Your task to perform on an android device: Do I have any events this weekend? Image 0: 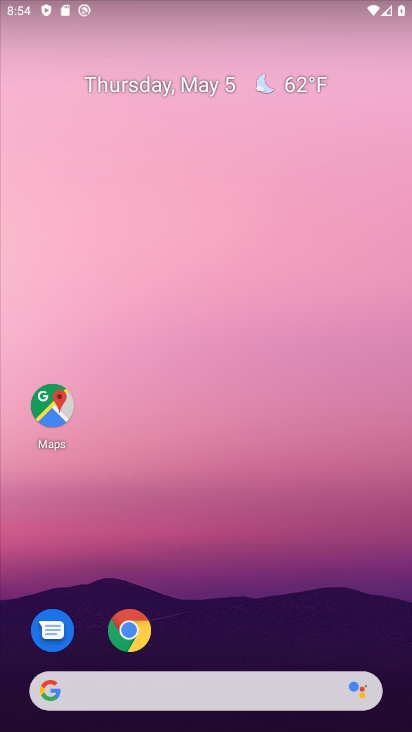
Step 0: press home button
Your task to perform on an android device: Do I have any events this weekend? Image 1: 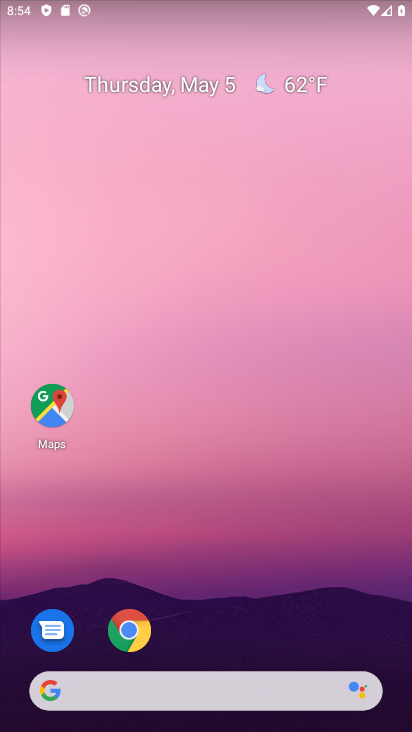
Step 1: drag from (211, 644) to (242, 16)
Your task to perform on an android device: Do I have any events this weekend? Image 2: 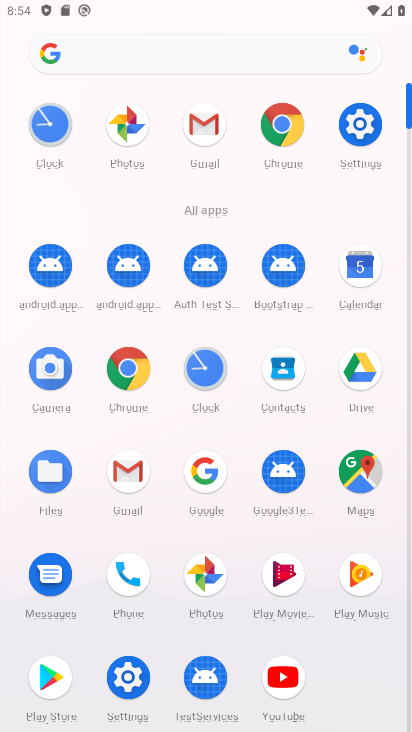
Step 2: click (355, 264)
Your task to perform on an android device: Do I have any events this weekend? Image 3: 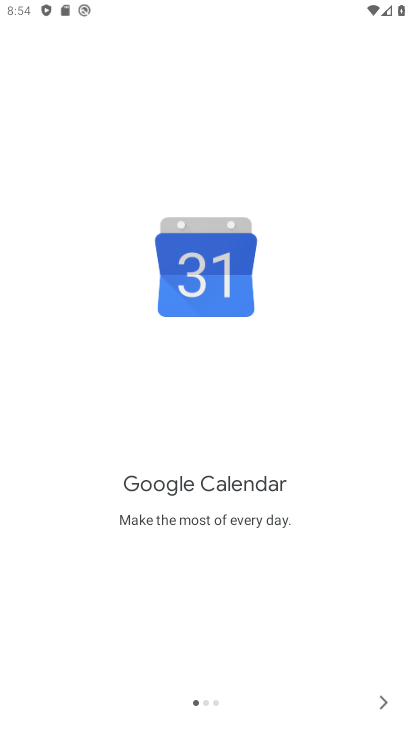
Step 3: click (383, 703)
Your task to perform on an android device: Do I have any events this weekend? Image 4: 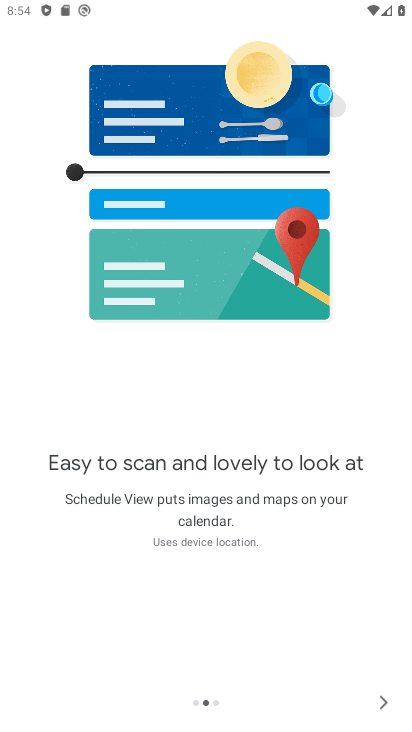
Step 4: click (383, 703)
Your task to perform on an android device: Do I have any events this weekend? Image 5: 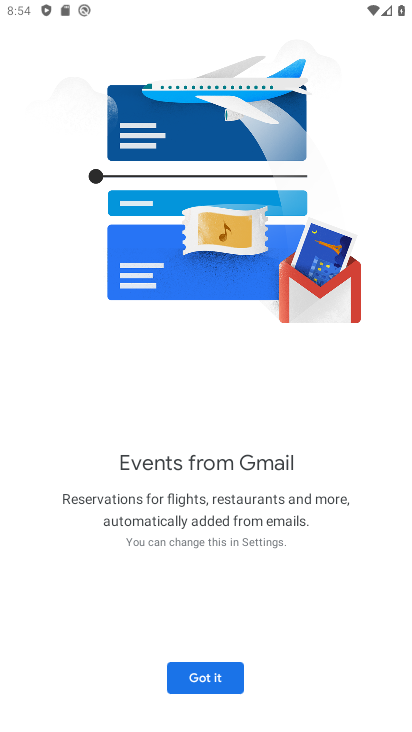
Step 5: click (204, 678)
Your task to perform on an android device: Do I have any events this weekend? Image 6: 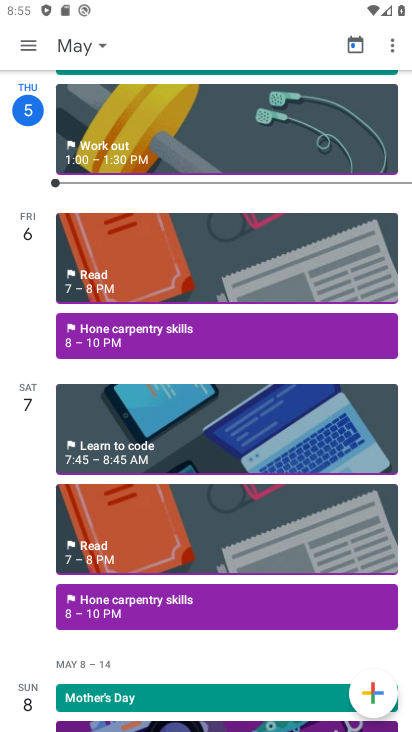
Step 6: click (23, 51)
Your task to perform on an android device: Do I have any events this weekend? Image 7: 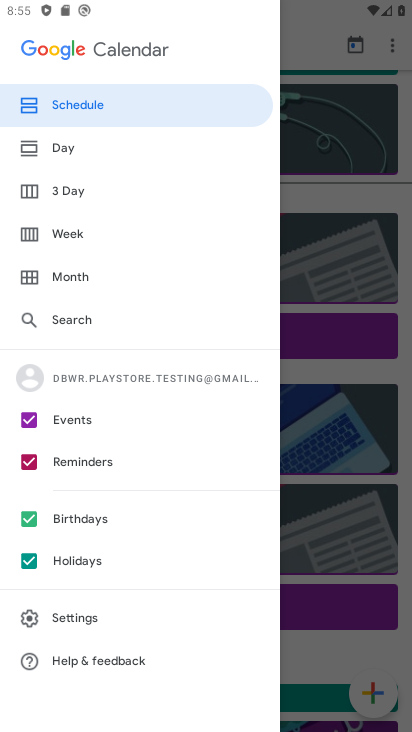
Step 7: click (27, 461)
Your task to perform on an android device: Do I have any events this weekend? Image 8: 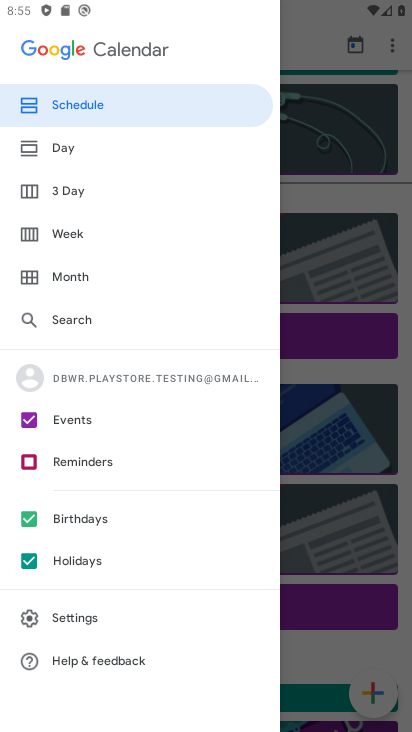
Step 8: click (31, 517)
Your task to perform on an android device: Do I have any events this weekend? Image 9: 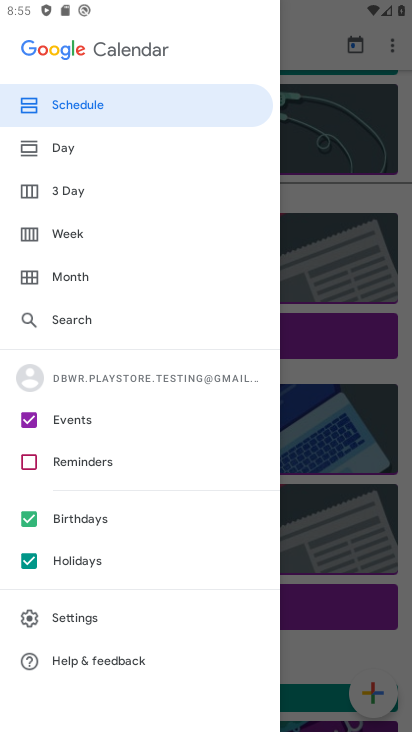
Step 9: click (28, 564)
Your task to perform on an android device: Do I have any events this weekend? Image 10: 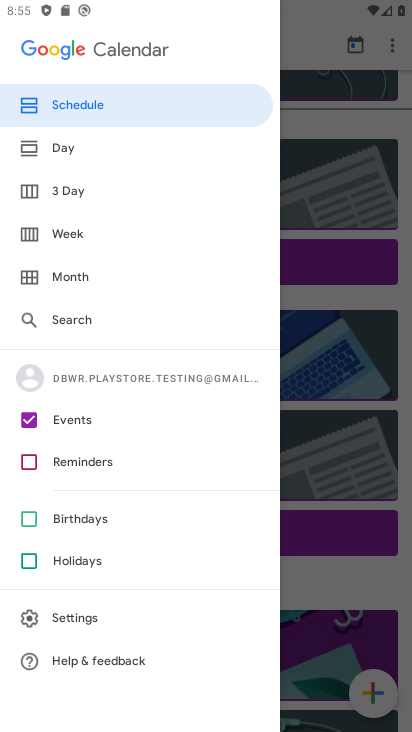
Step 10: click (52, 232)
Your task to perform on an android device: Do I have any events this weekend? Image 11: 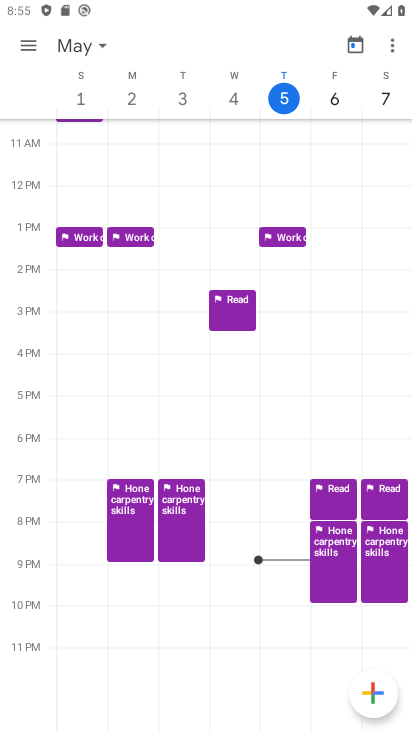
Step 11: click (279, 99)
Your task to perform on an android device: Do I have any events this weekend? Image 12: 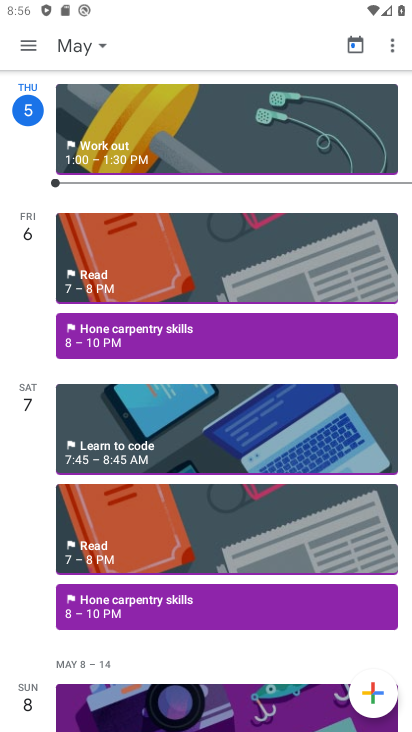
Step 12: task complete